Your task to perform on an android device: Check the news Image 0: 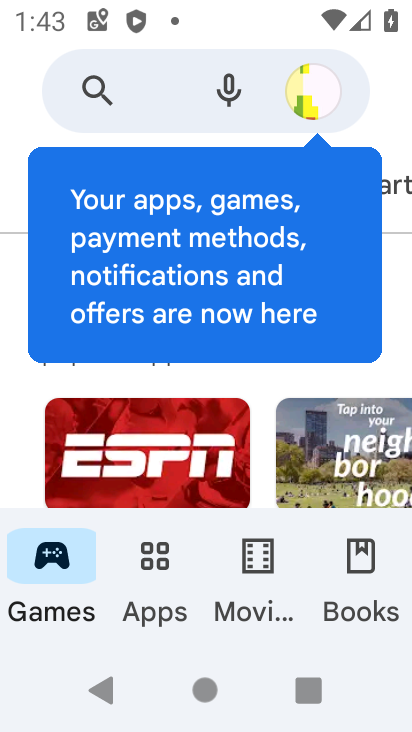
Step 0: press home button
Your task to perform on an android device: Check the news Image 1: 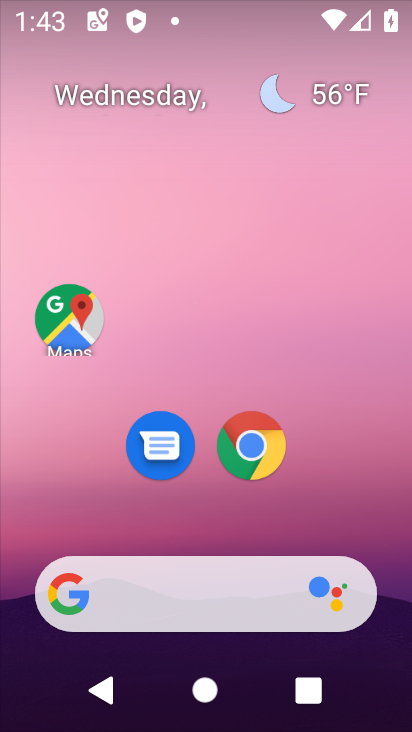
Step 1: click (203, 561)
Your task to perform on an android device: Check the news Image 2: 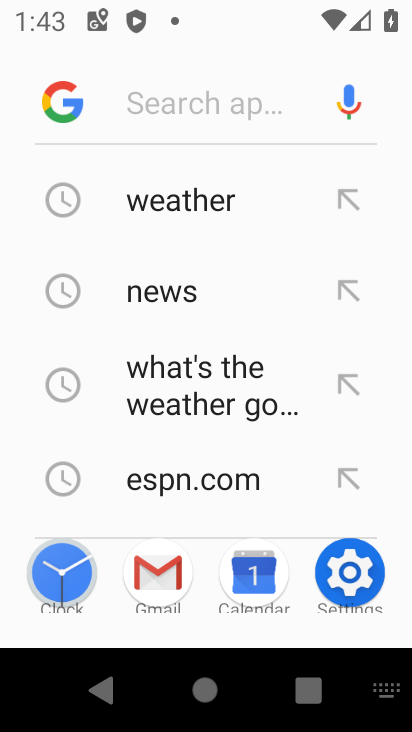
Step 2: click (150, 284)
Your task to perform on an android device: Check the news Image 3: 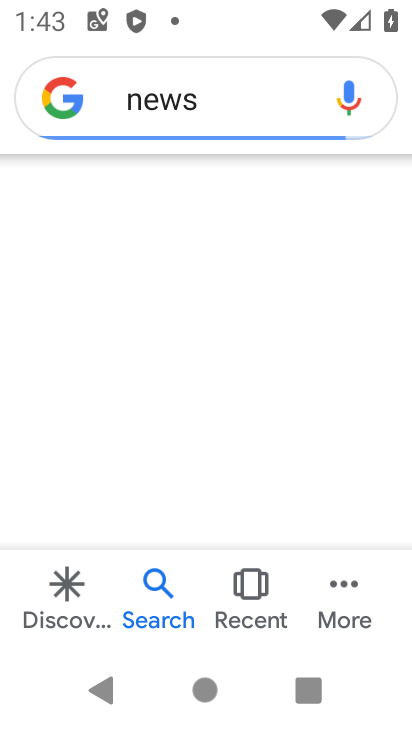
Step 3: task complete